Your task to perform on an android device: stop showing notifications on the lock screen Image 0: 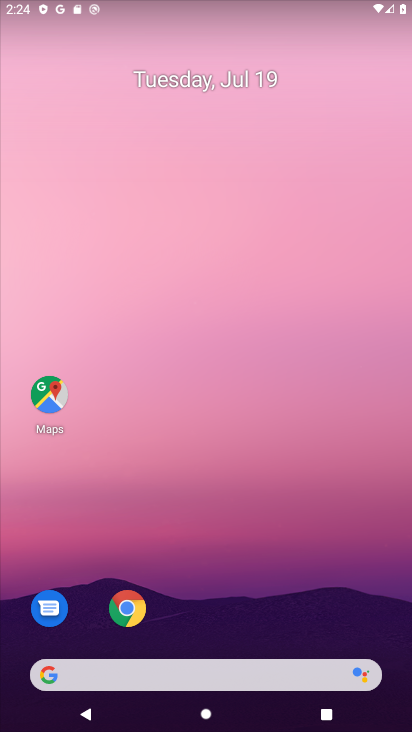
Step 0: drag from (290, 619) to (312, 122)
Your task to perform on an android device: stop showing notifications on the lock screen Image 1: 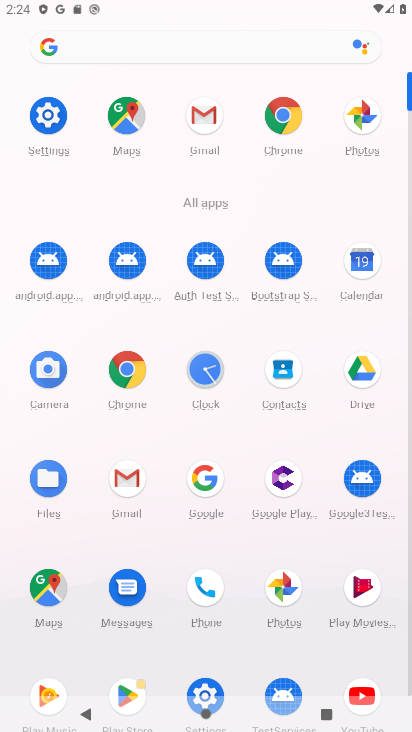
Step 1: click (53, 115)
Your task to perform on an android device: stop showing notifications on the lock screen Image 2: 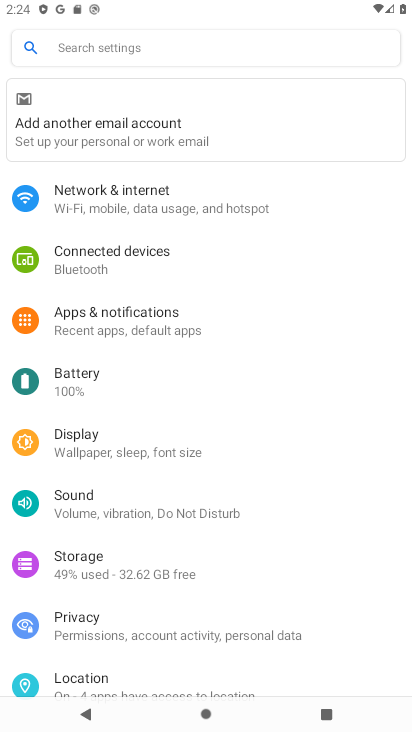
Step 2: click (126, 319)
Your task to perform on an android device: stop showing notifications on the lock screen Image 3: 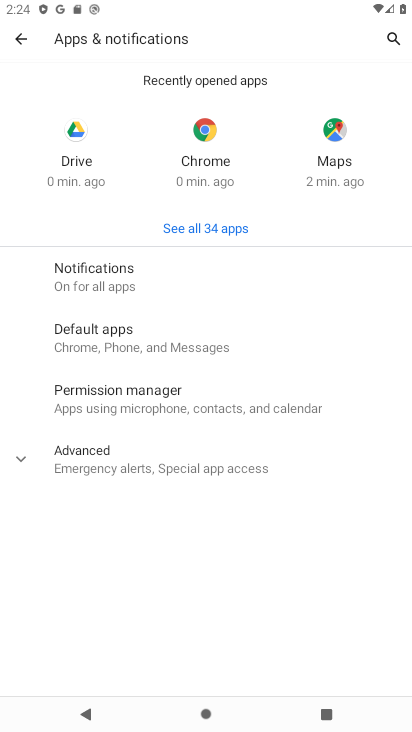
Step 3: click (112, 286)
Your task to perform on an android device: stop showing notifications on the lock screen Image 4: 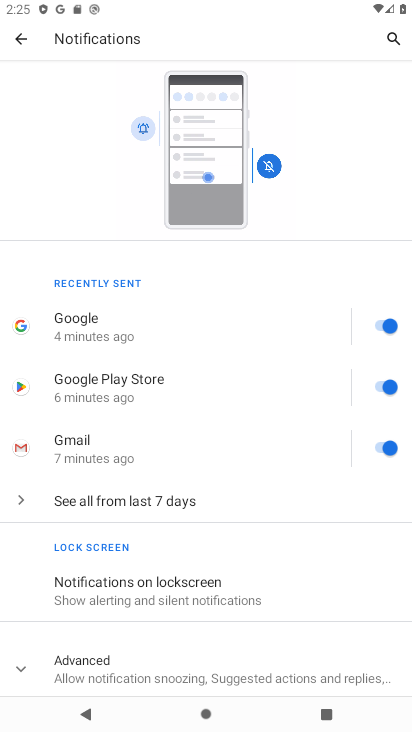
Step 4: click (165, 565)
Your task to perform on an android device: stop showing notifications on the lock screen Image 5: 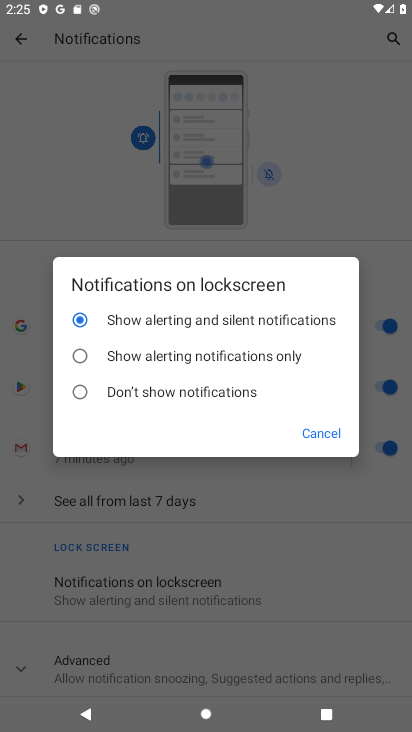
Step 5: click (140, 390)
Your task to perform on an android device: stop showing notifications on the lock screen Image 6: 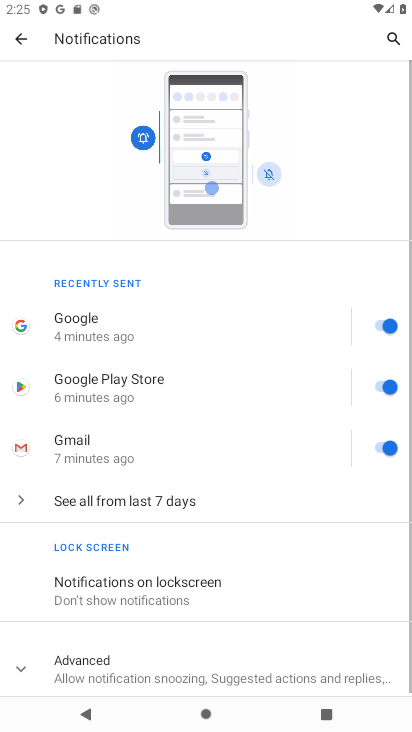
Step 6: task complete